Your task to perform on an android device: Open Google Chrome Image 0: 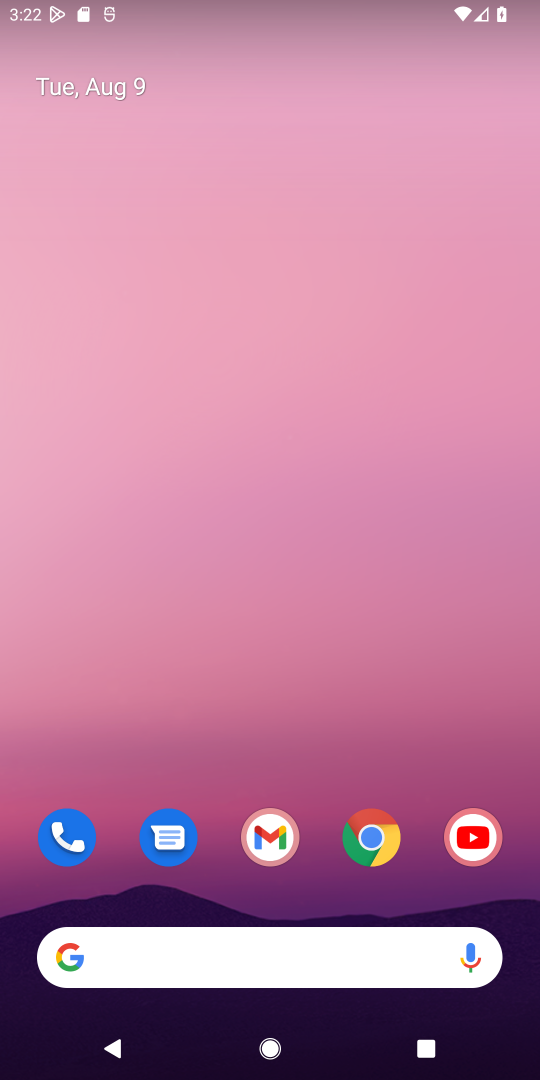
Step 0: drag from (216, 959) to (260, 70)
Your task to perform on an android device: Open Google Chrome Image 1: 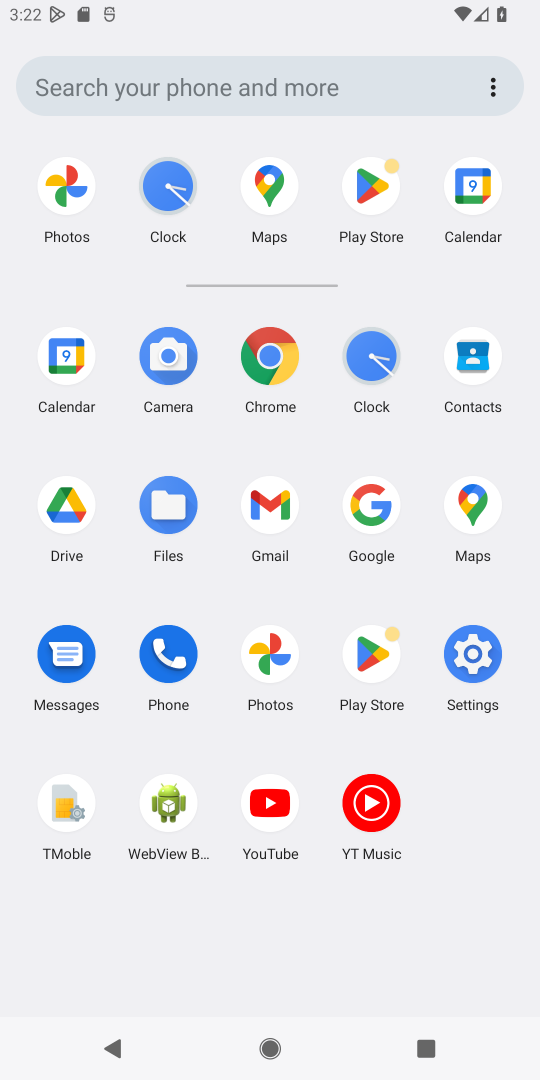
Step 1: click (356, 487)
Your task to perform on an android device: Open Google Chrome Image 2: 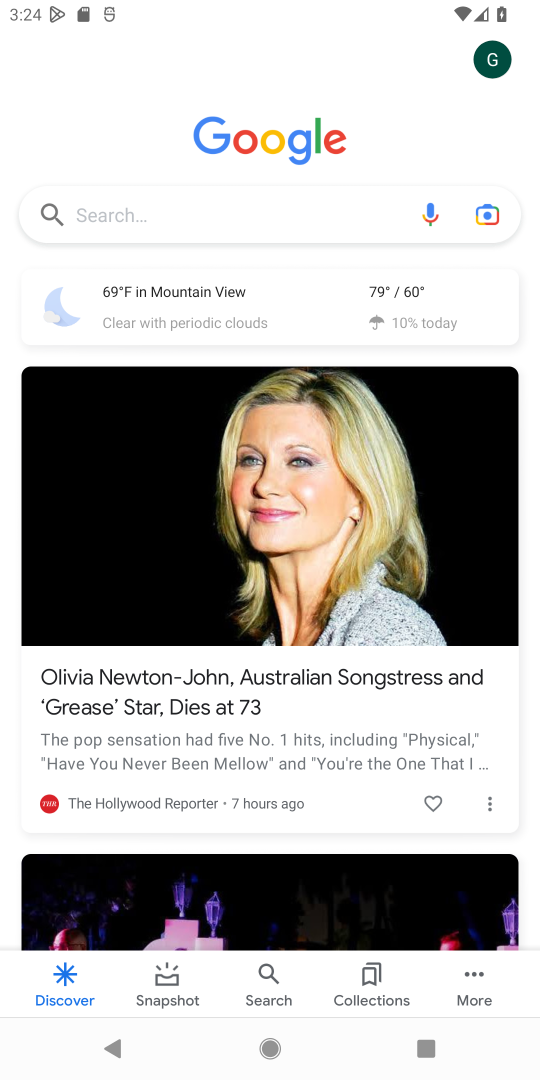
Step 2: task complete